Your task to perform on an android device: toggle sleep mode Image 0: 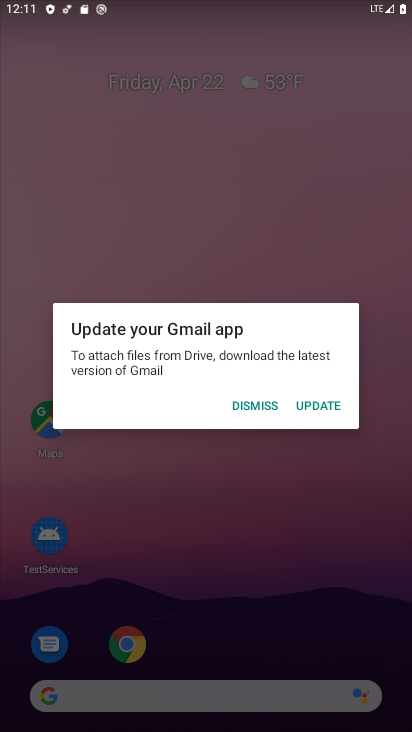
Step 0: press home button
Your task to perform on an android device: toggle sleep mode Image 1: 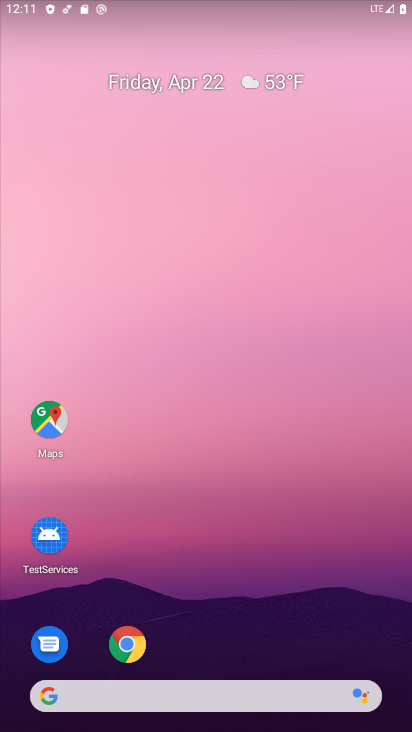
Step 1: drag from (228, 604) to (251, 87)
Your task to perform on an android device: toggle sleep mode Image 2: 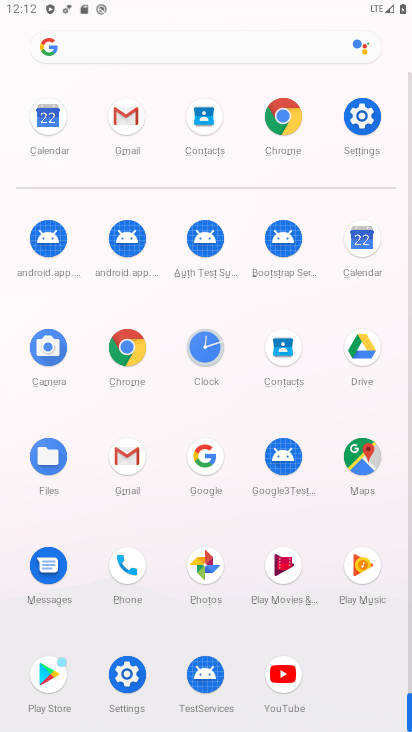
Step 2: click (125, 675)
Your task to perform on an android device: toggle sleep mode Image 3: 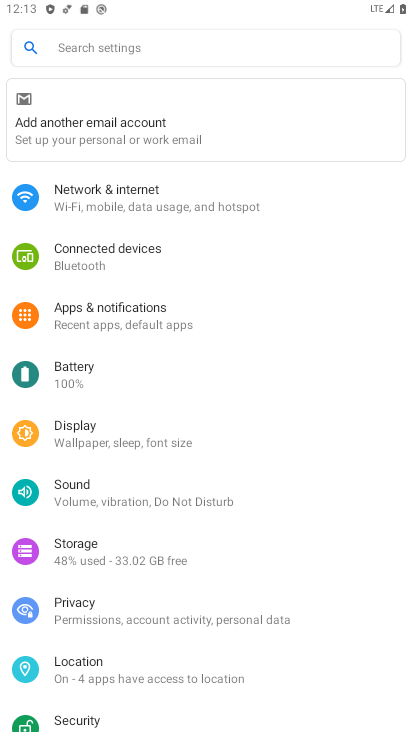
Step 3: click (89, 433)
Your task to perform on an android device: toggle sleep mode Image 4: 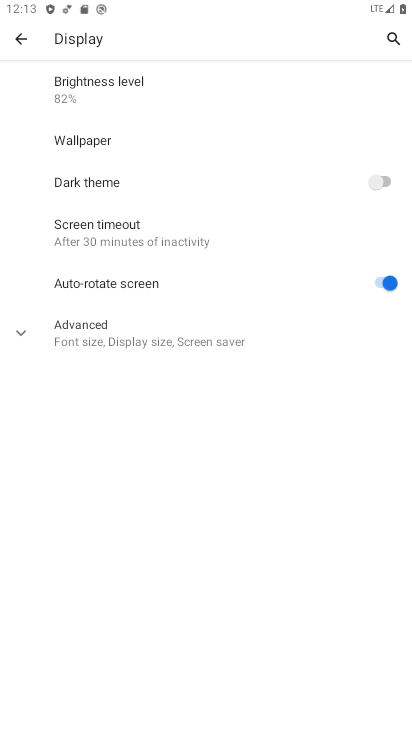
Step 4: click (95, 244)
Your task to perform on an android device: toggle sleep mode Image 5: 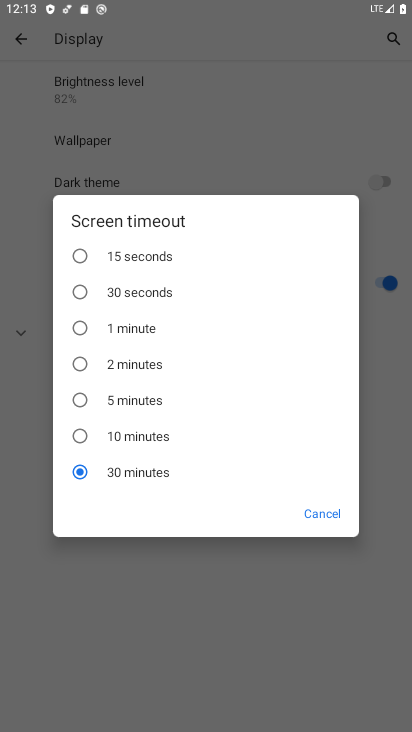
Step 5: click (130, 437)
Your task to perform on an android device: toggle sleep mode Image 6: 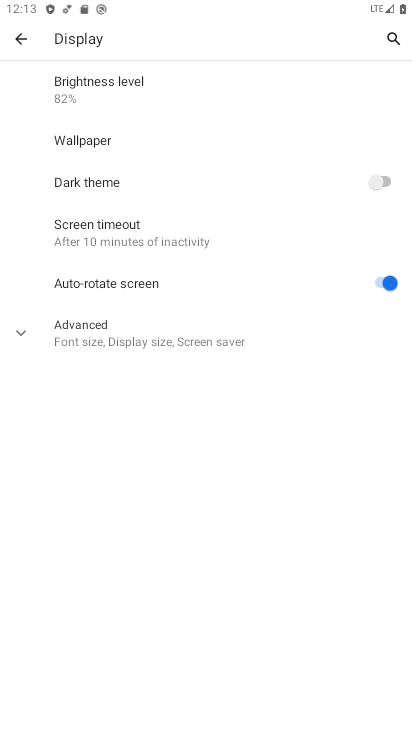
Step 6: task complete